Your task to perform on an android device: Toggle the flashlight Image 0: 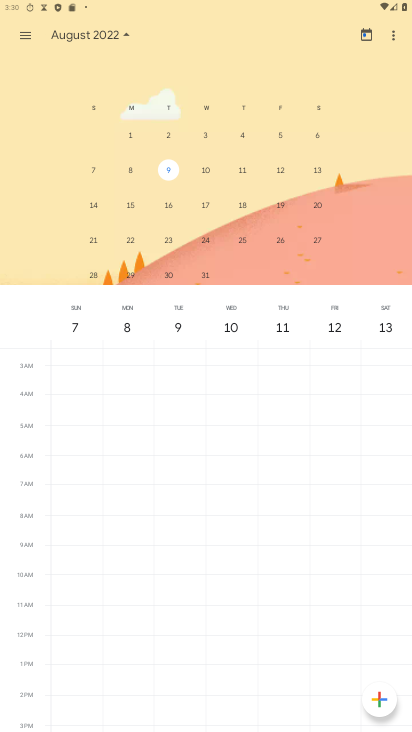
Step 0: press home button
Your task to perform on an android device: Toggle the flashlight Image 1: 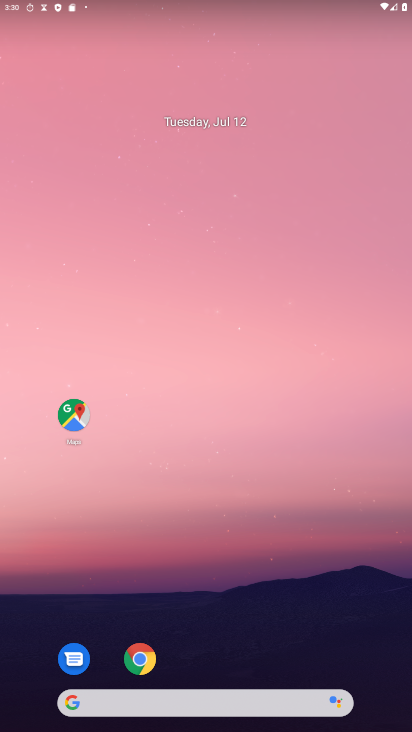
Step 1: task complete